Your task to perform on an android device: Turn on the flashlight Image 0: 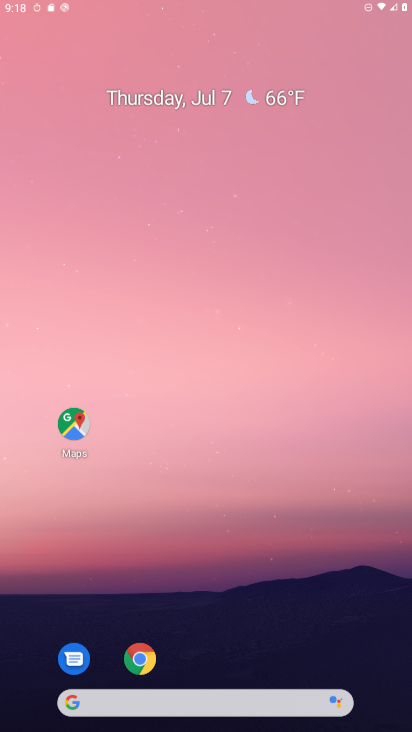
Step 0: drag from (378, 706) to (331, 119)
Your task to perform on an android device: Turn on the flashlight Image 1: 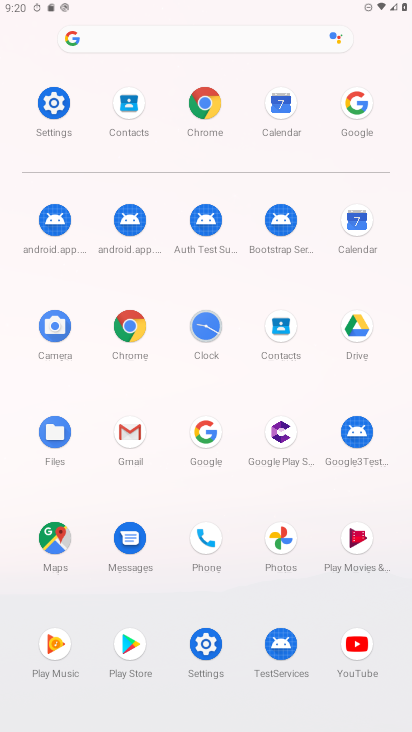
Step 1: click (220, 640)
Your task to perform on an android device: Turn on the flashlight Image 2: 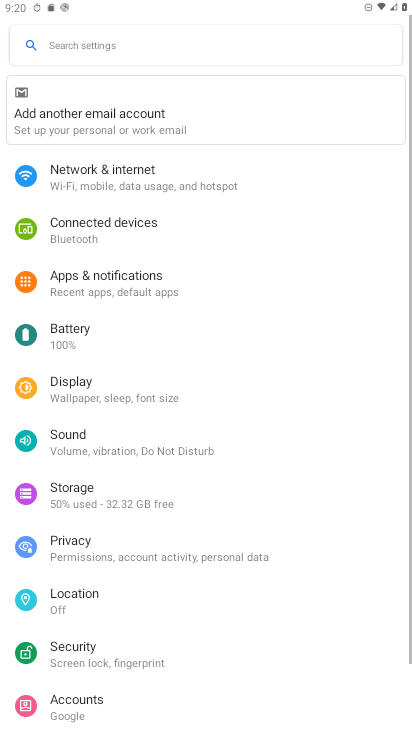
Step 2: task complete